Your task to perform on an android device: turn off airplane mode Image 0: 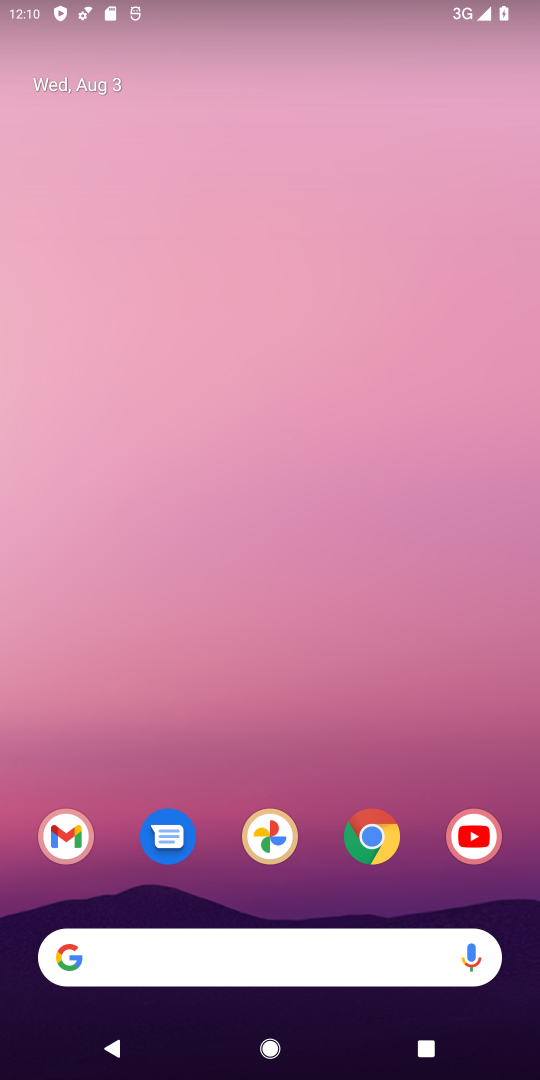
Step 0: drag from (259, 872) to (292, 497)
Your task to perform on an android device: turn off airplane mode Image 1: 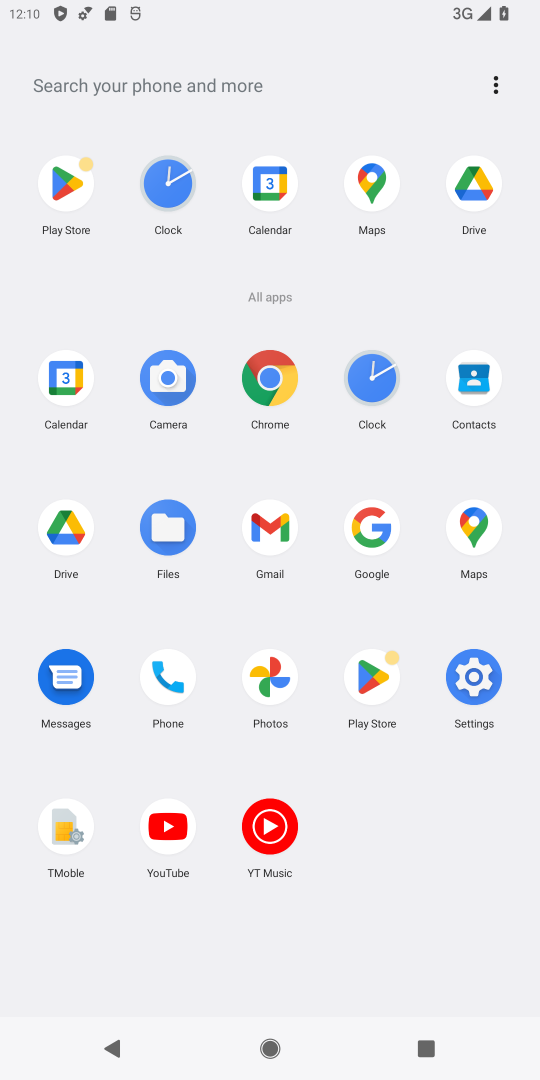
Step 1: click (476, 655)
Your task to perform on an android device: turn off airplane mode Image 2: 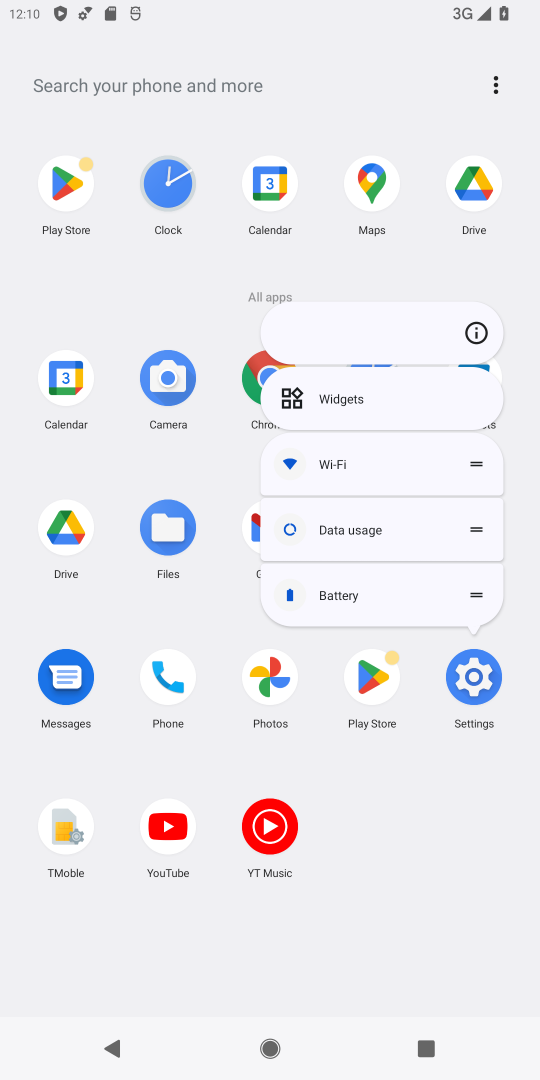
Step 2: click (481, 330)
Your task to perform on an android device: turn off airplane mode Image 3: 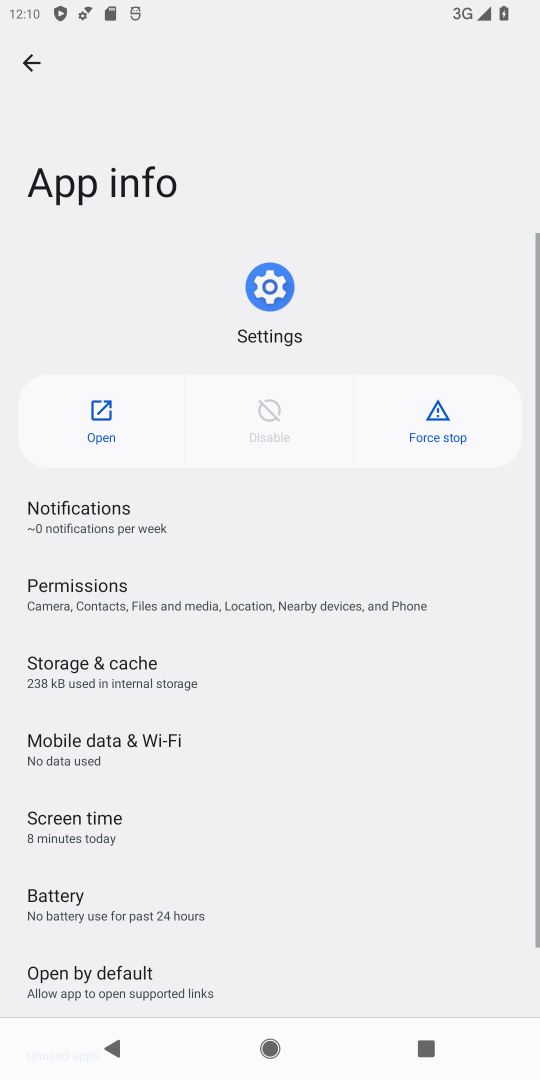
Step 3: click (87, 421)
Your task to perform on an android device: turn off airplane mode Image 4: 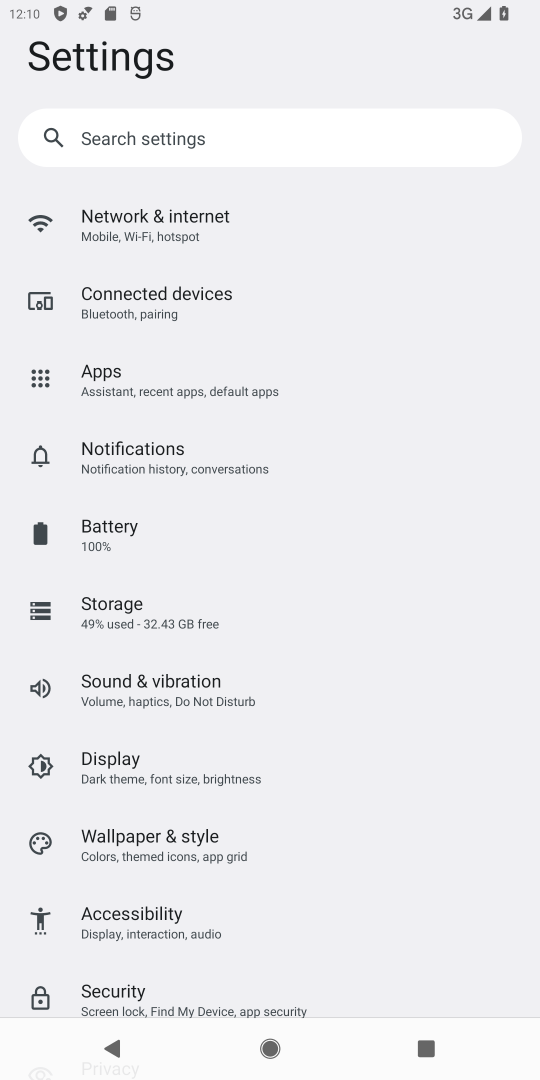
Step 4: click (198, 247)
Your task to perform on an android device: turn off airplane mode Image 5: 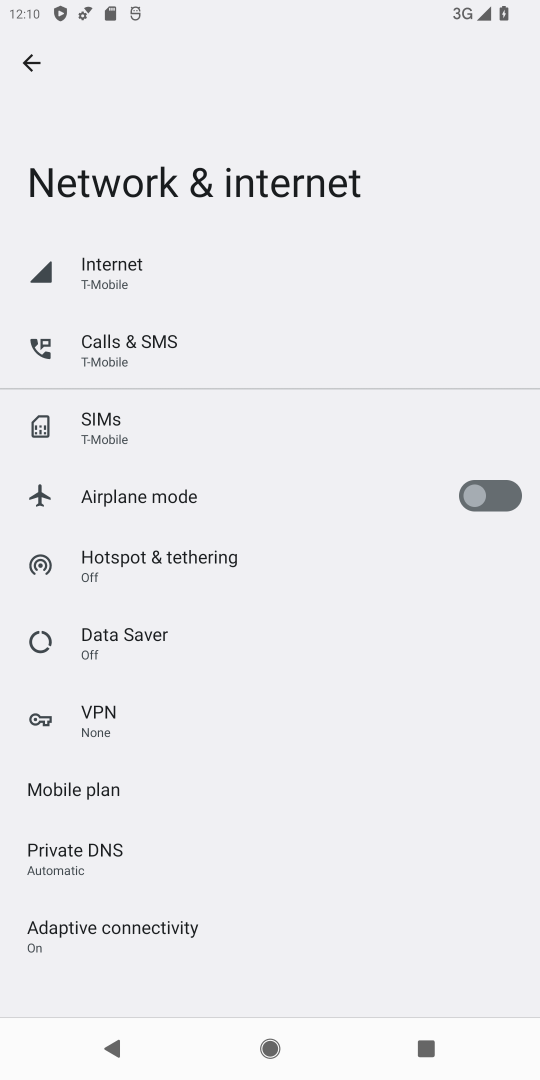
Step 5: task complete